Your task to perform on an android device: open app "Flipkart Online Shopping App" (install if not already installed) Image 0: 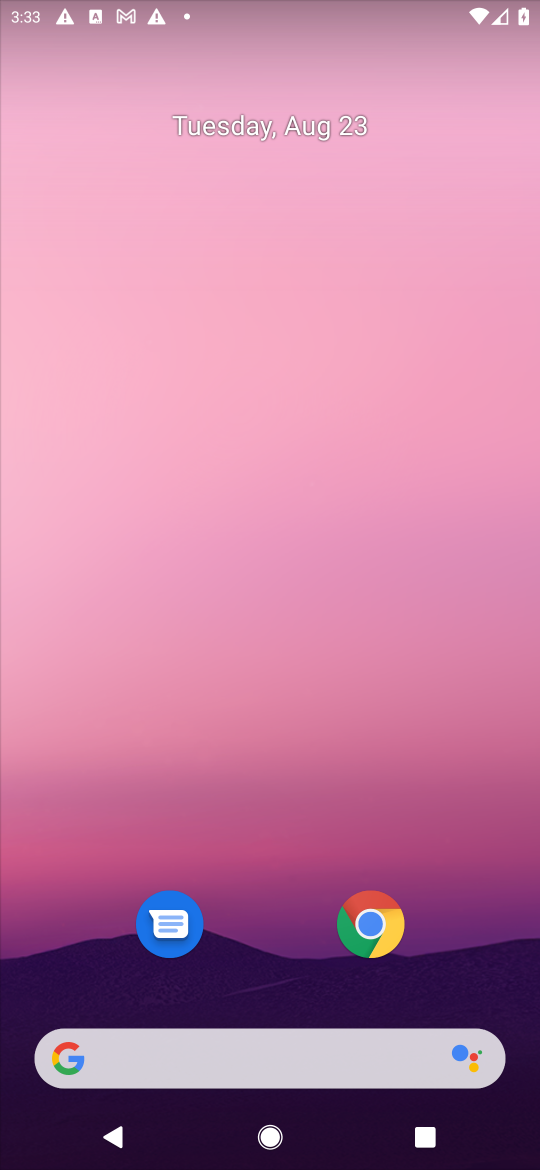
Step 0: press home button
Your task to perform on an android device: open app "Flipkart Online Shopping App" (install if not already installed) Image 1: 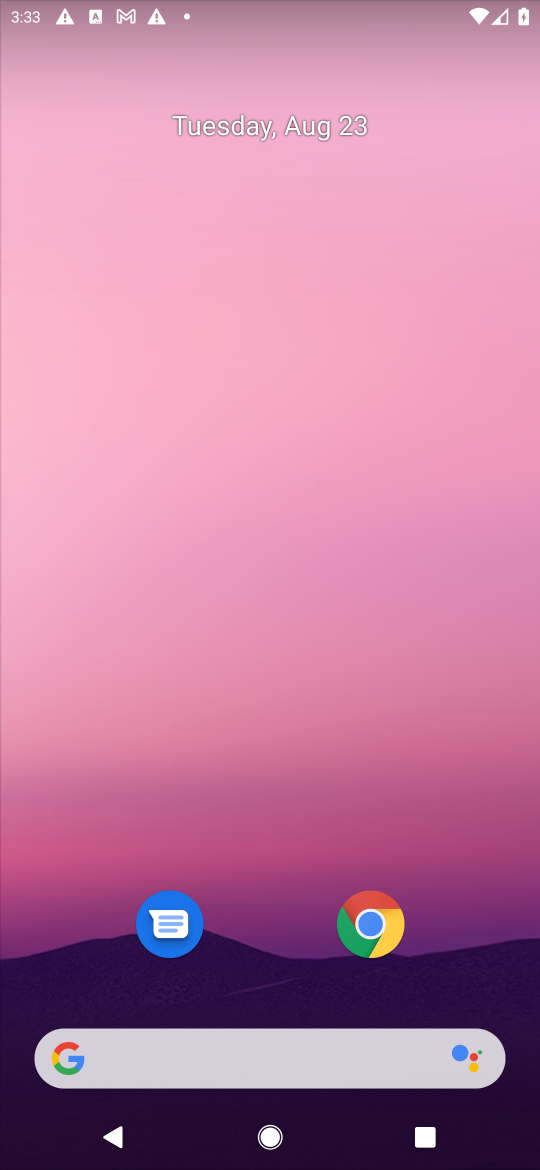
Step 1: drag from (465, 918) to (420, 85)
Your task to perform on an android device: open app "Flipkart Online Shopping App" (install if not already installed) Image 2: 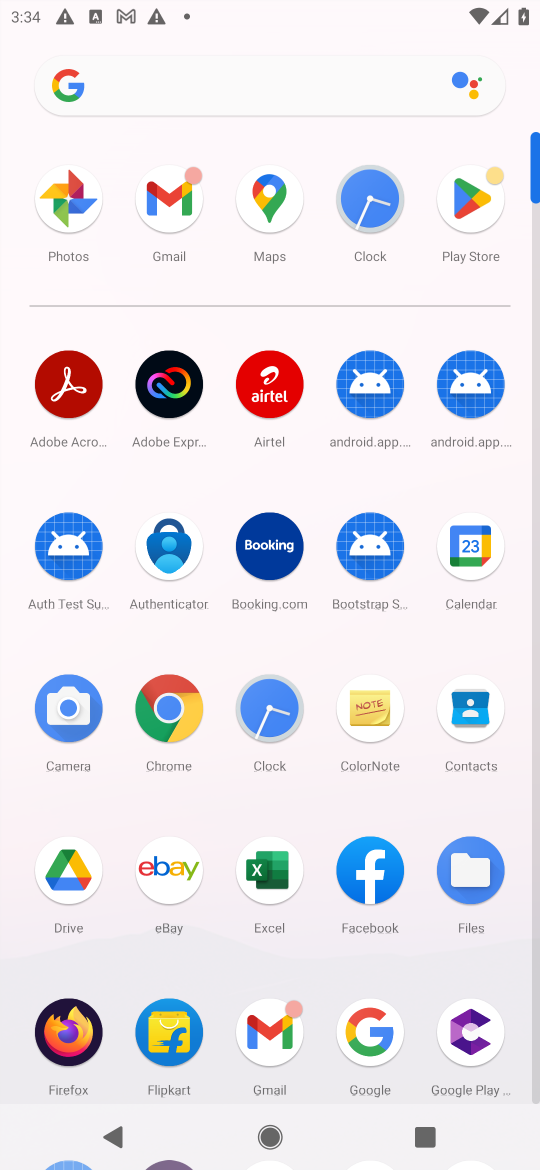
Step 2: click (467, 203)
Your task to perform on an android device: open app "Flipkart Online Shopping App" (install if not already installed) Image 3: 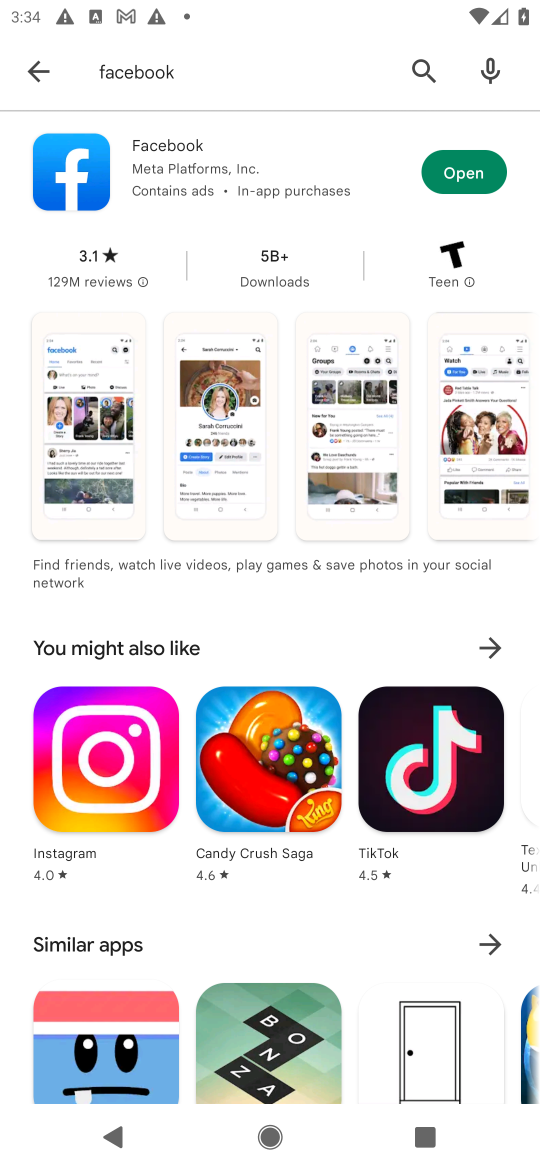
Step 3: press back button
Your task to perform on an android device: open app "Flipkart Online Shopping App" (install if not already installed) Image 4: 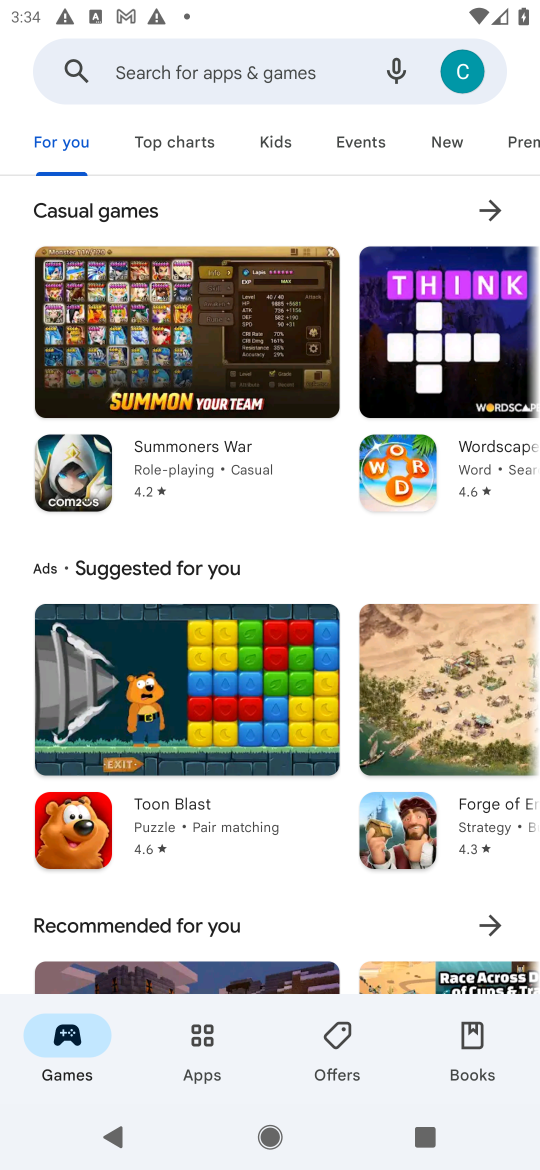
Step 4: click (295, 73)
Your task to perform on an android device: open app "Flipkart Online Shopping App" (install if not already installed) Image 5: 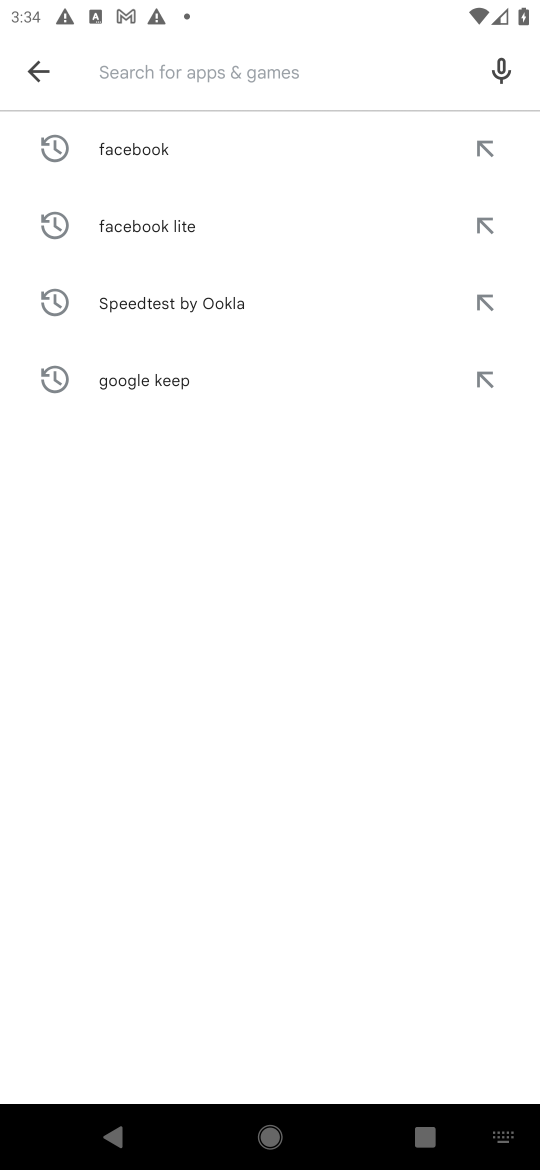
Step 5: press enter
Your task to perform on an android device: open app "Flipkart Online Shopping App" (install if not already installed) Image 6: 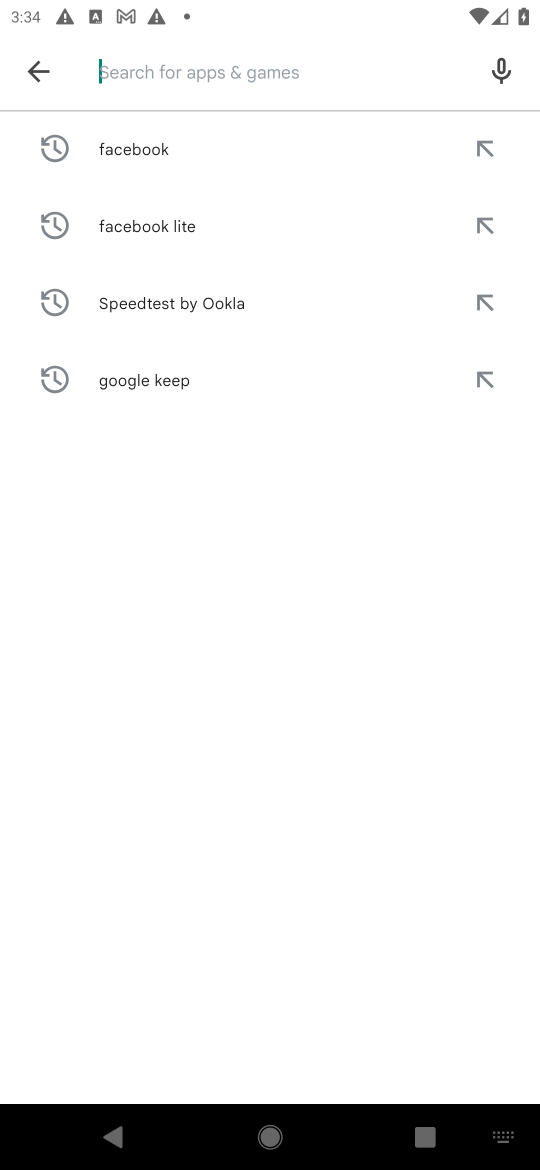
Step 6: type "Flipkart Online Shopping App"
Your task to perform on an android device: open app "Flipkart Online Shopping App" (install if not already installed) Image 7: 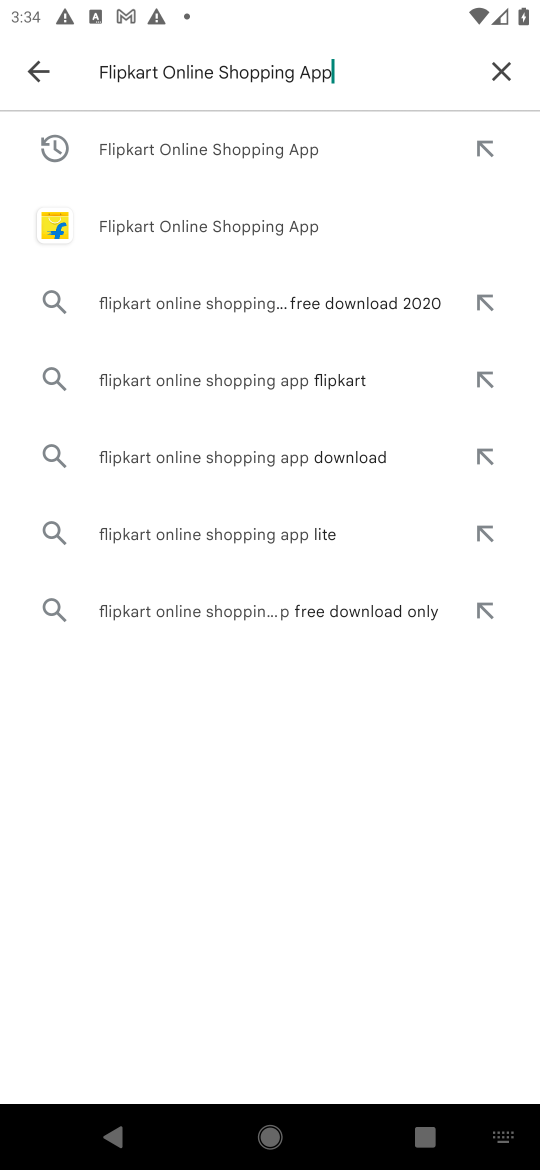
Step 7: click (270, 233)
Your task to perform on an android device: open app "Flipkart Online Shopping App" (install if not already installed) Image 8: 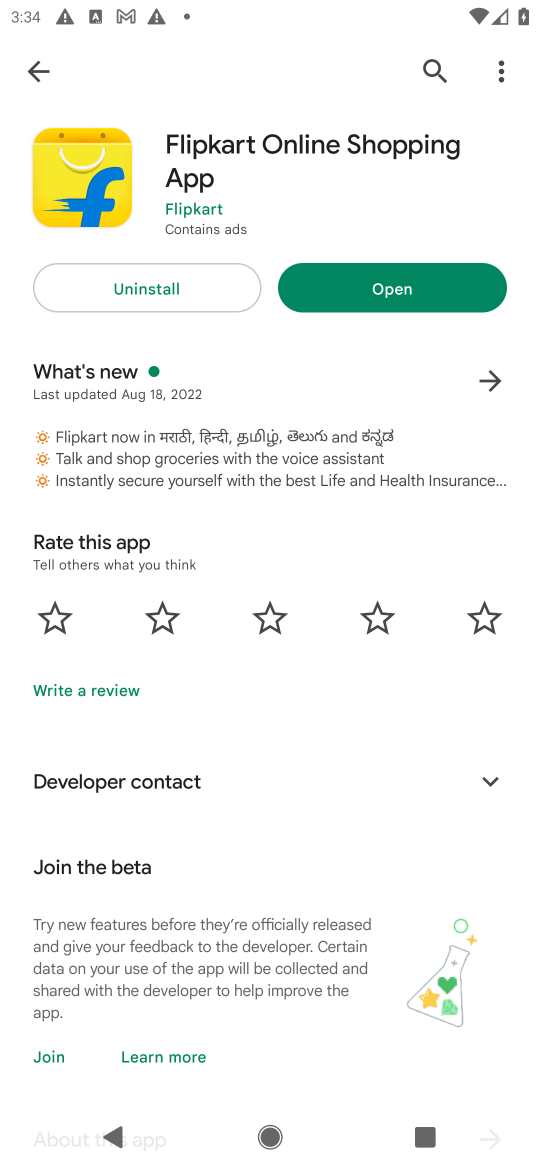
Step 8: click (385, 289)
Your task to perform on an android device: open app "Flipkart Online Shopping App" (install if not already installed) Image 9: 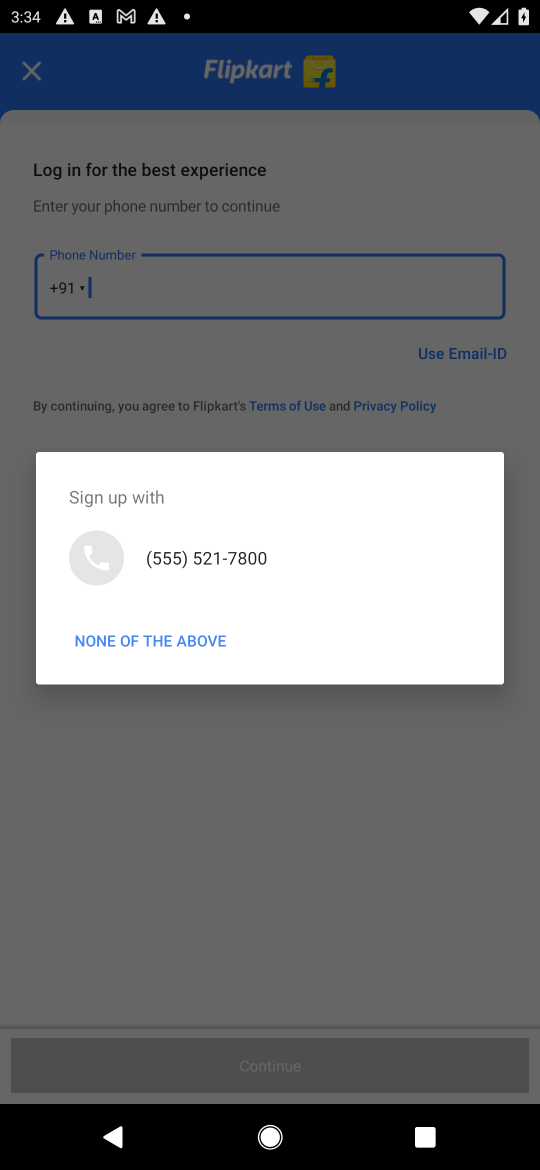
Step 9: task complete